Your task to perform on an android device: Clear the cart on newegg.com. Image 0: 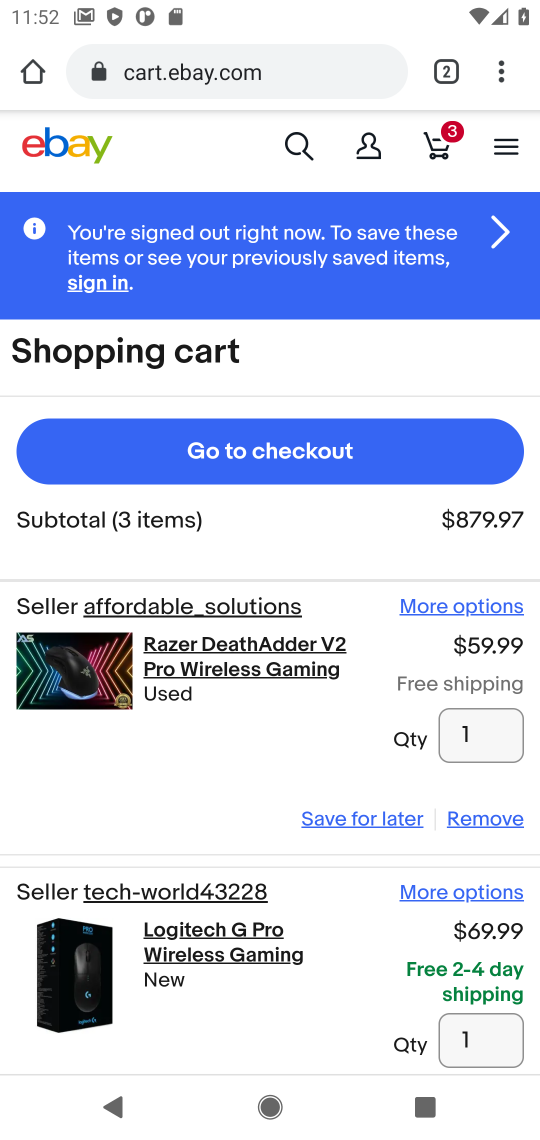
Step 0: click (291, 54)
Your task to perform on an android device: Clear the cart on newegg.com. Image 1: 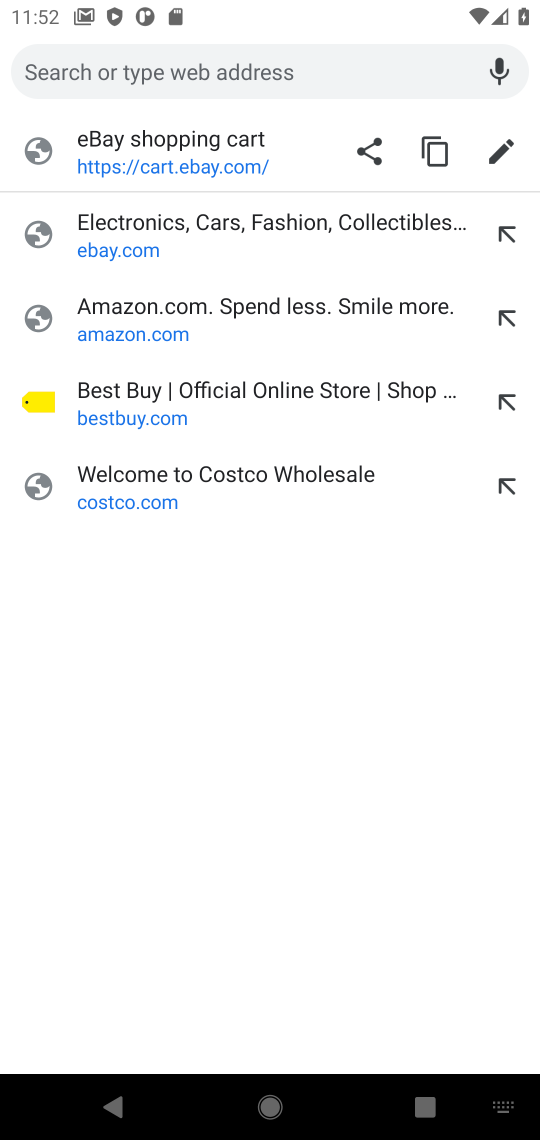
Step 1: press enter
Your task to perform on an android device: Clear the cart on newegg.com. Image 2: 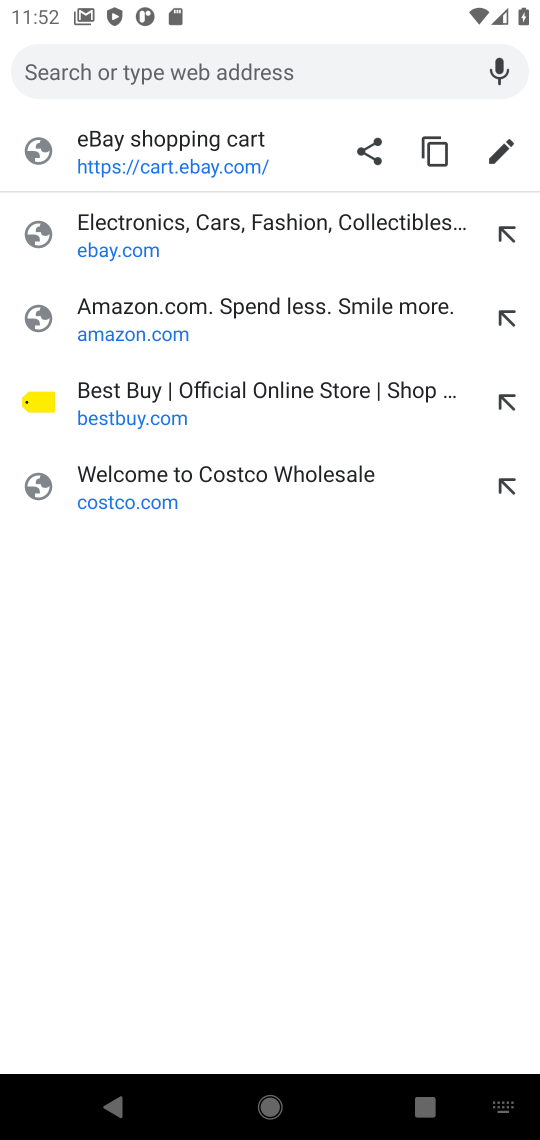
Step 2: type "newegg.com"
Your task to perform on an android device: Clear the cart on newegg.com. Image 3: 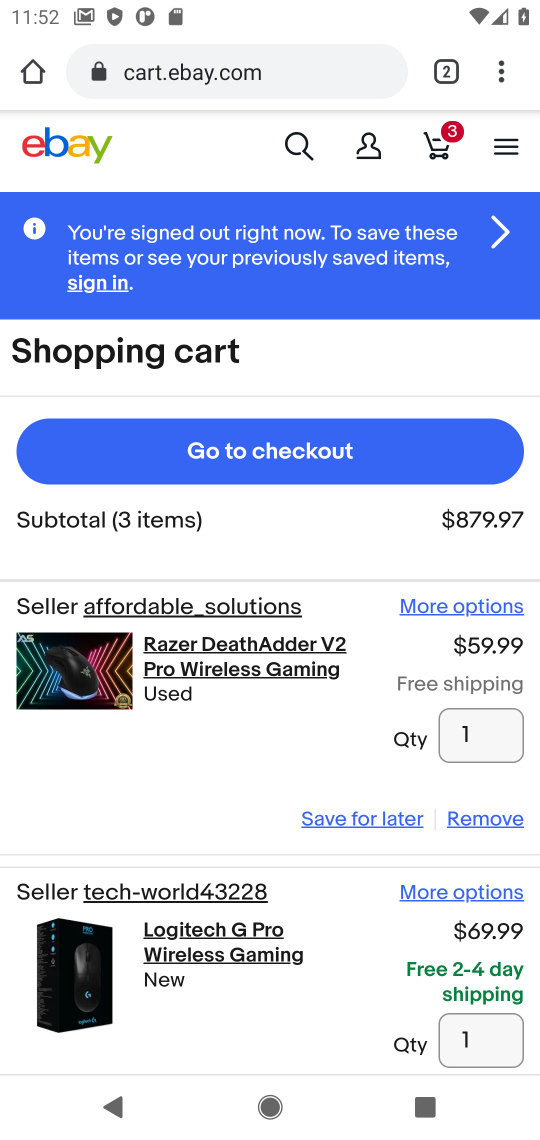
Step 3: click (336, 60)
Your task to perform on an android device: Clear the cart on newegg.com. Image 4: 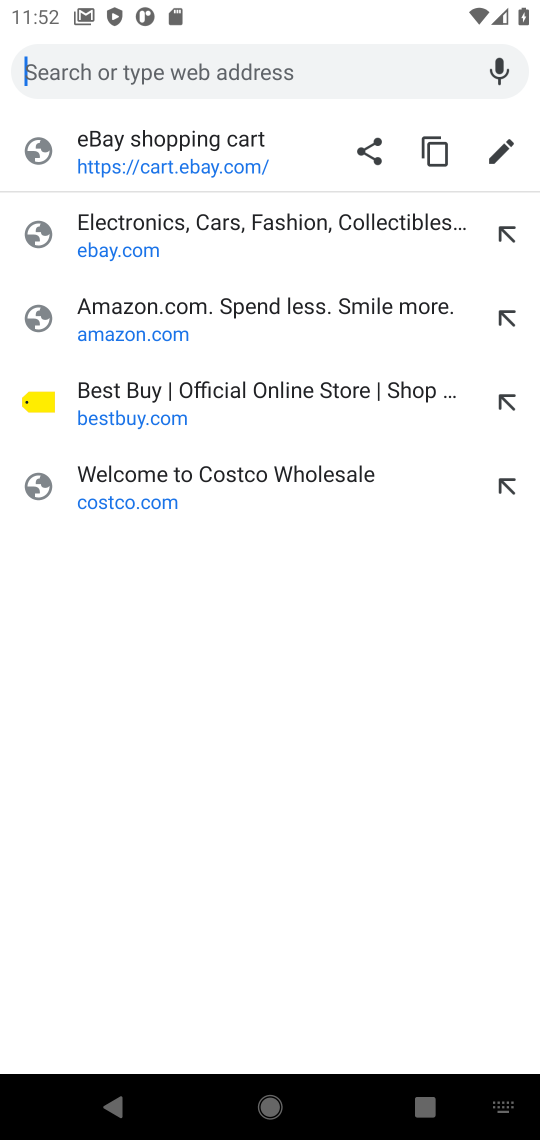
Step 4: press enter
Your task to perform on an android device: Clear the cart on newegg.com. Image 5: 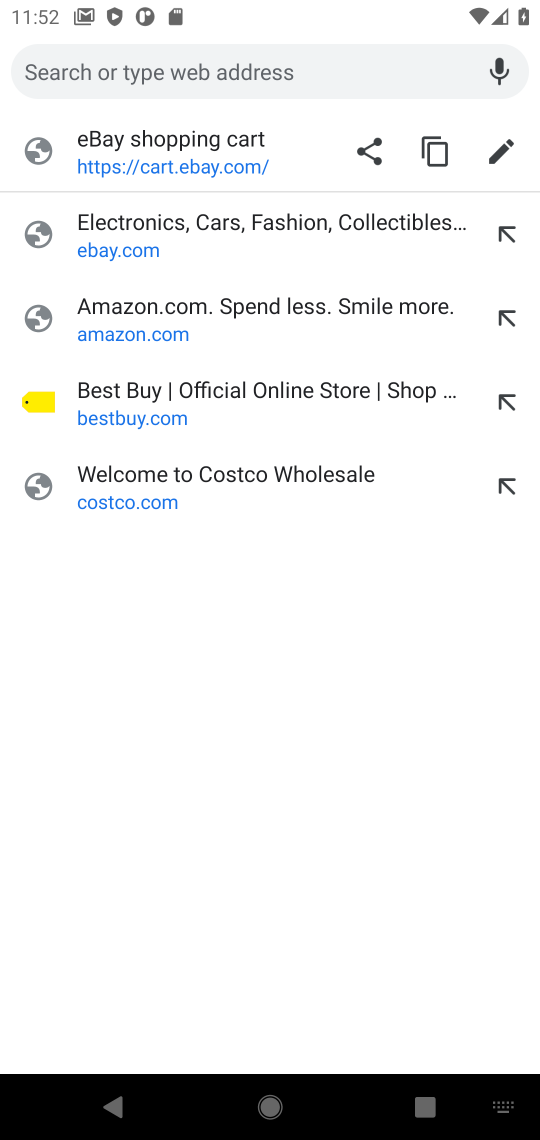
Step 5: type "newegg.com"
Your task to perform on an android device: Clear the cart on newegg.com. Image 6: 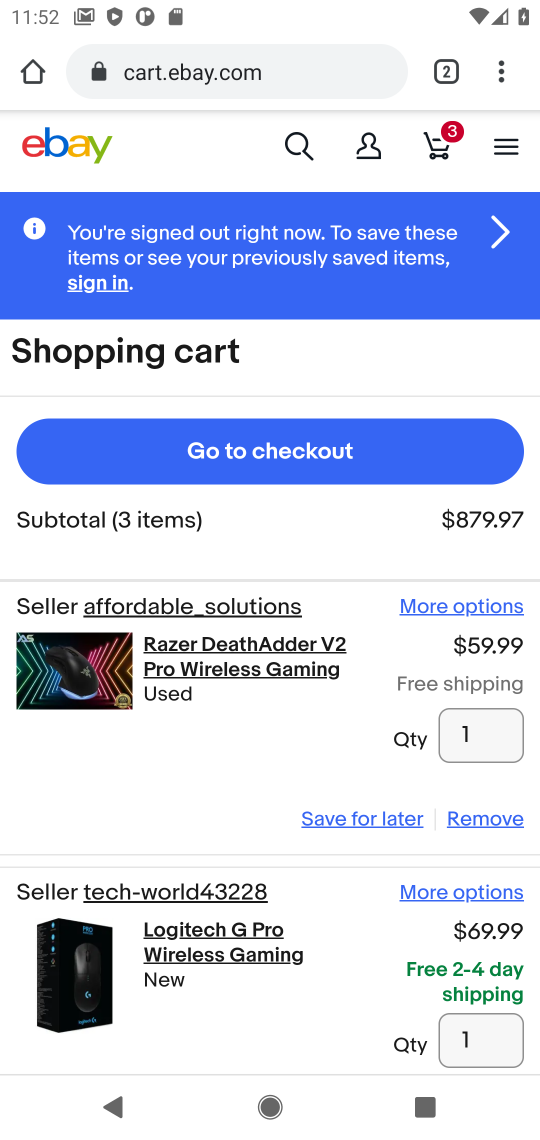
Step 6: click (40, 77)
Your task to perform on an android device: Clear the cart on newegg.com. Image 7: 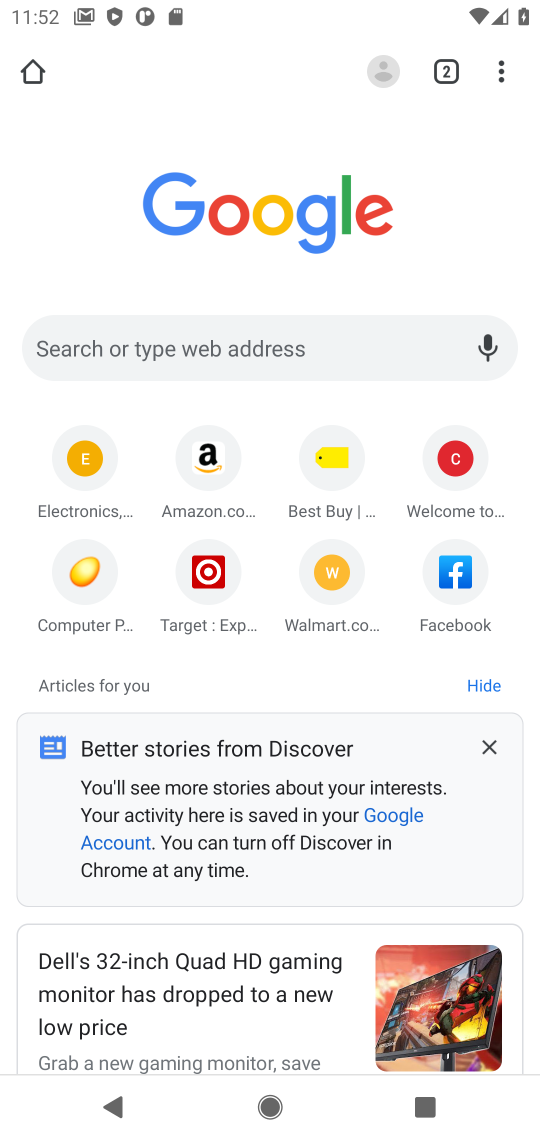
Step 7: click (266, 347)
Your task to perform on an android device: Clear the cart on newegg.com. Image 8: 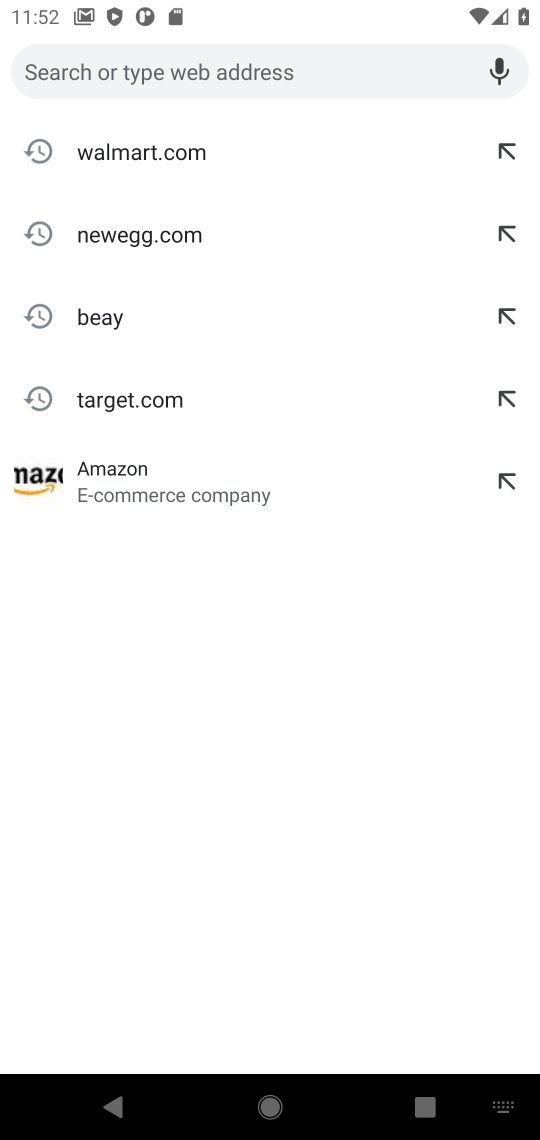
Step 8: click (176, 235)
Your task to perform on an android device: Clear the cart on newegg.com. Image 9: 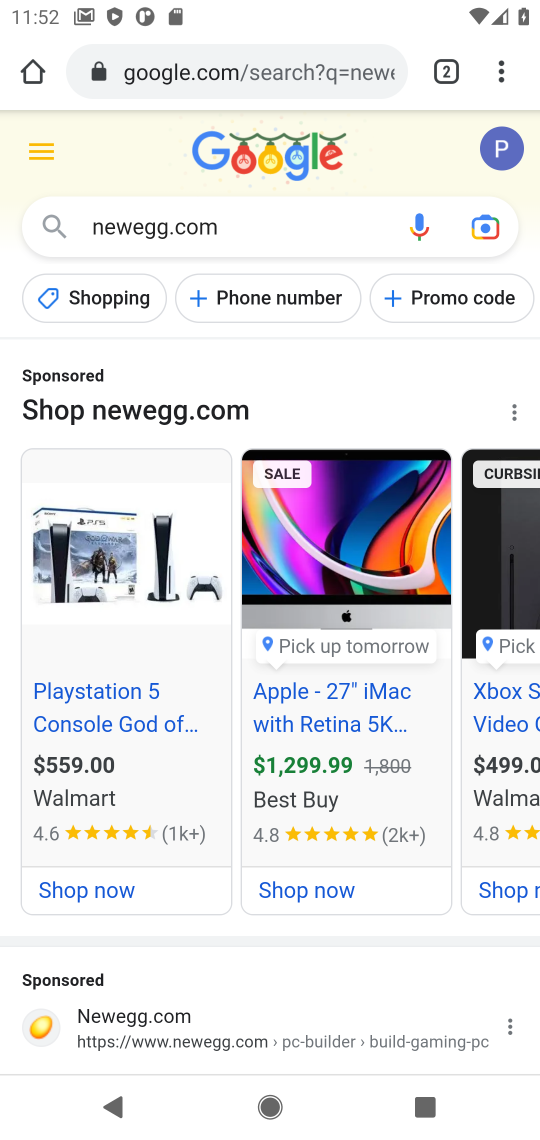
Step 9: drag from (258, 972) to (379, 313)
Your task to perform on an android device: Clear the cart on newegg.com. Image 10: 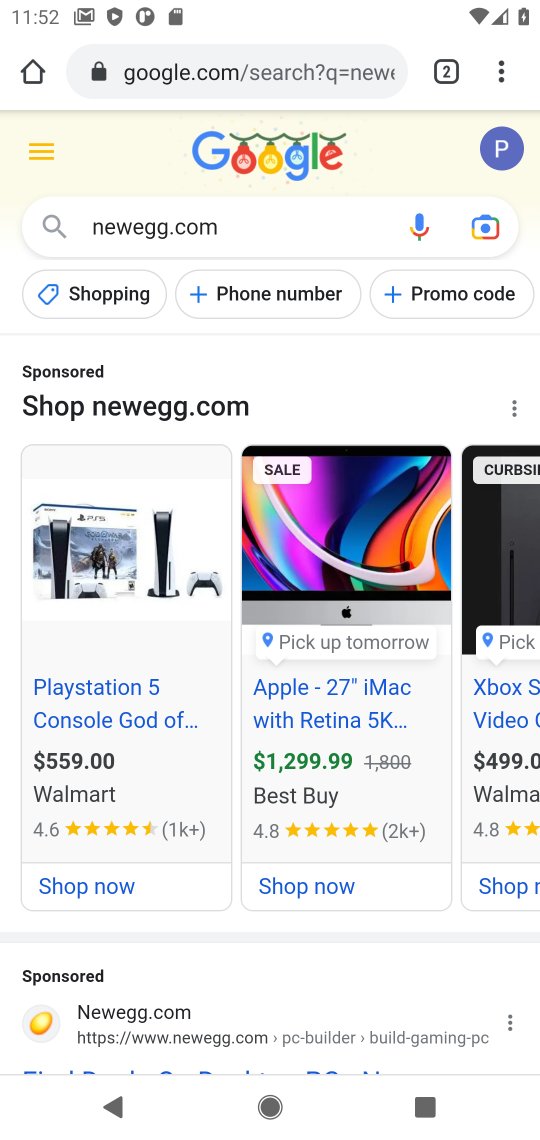
Step 10: drag from (258, 979) to (335, 482)
Your task to perform on an android device: Clear the cart on newegg.com. Image 11: 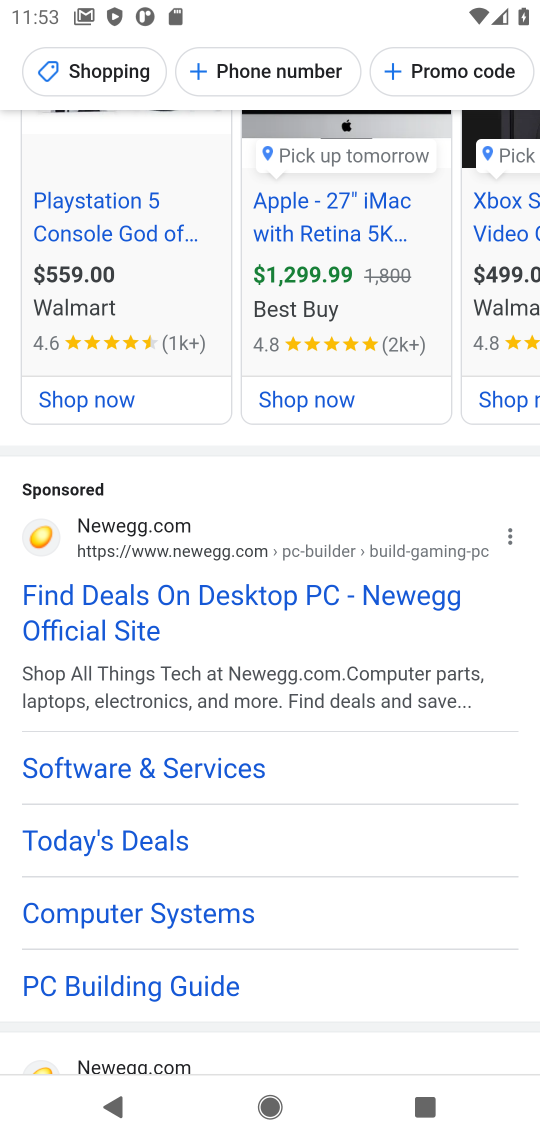
Step 11: drag from (313, 754) to (415, 196)
Your task to perform on an android device: Clear the cart on newegg.com. Image 12: 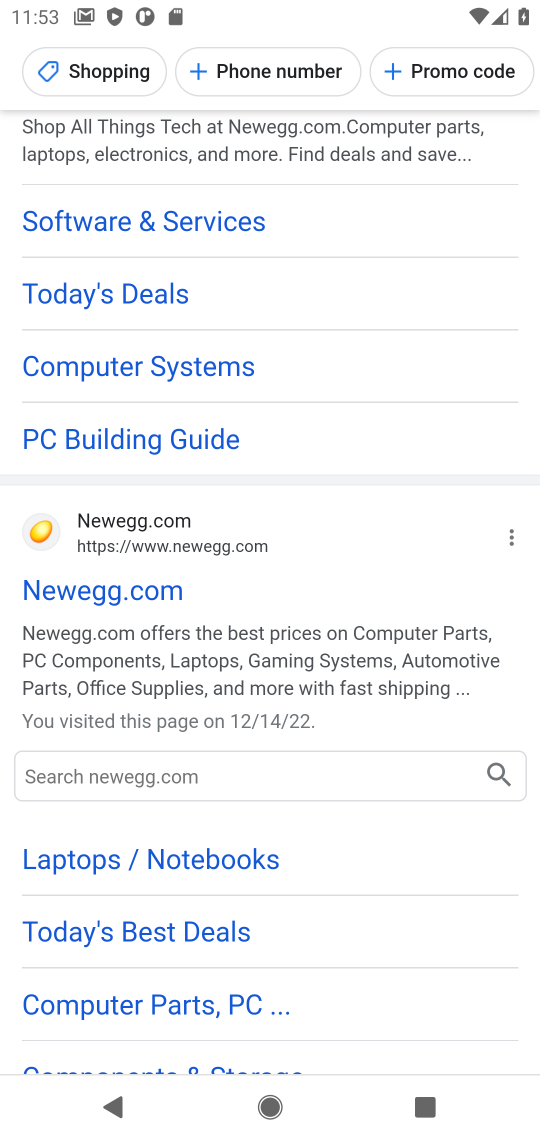
Step 12: click (225, 543)
Your task to perform on an android device: Clear the cart on newegg.com. Image 13: 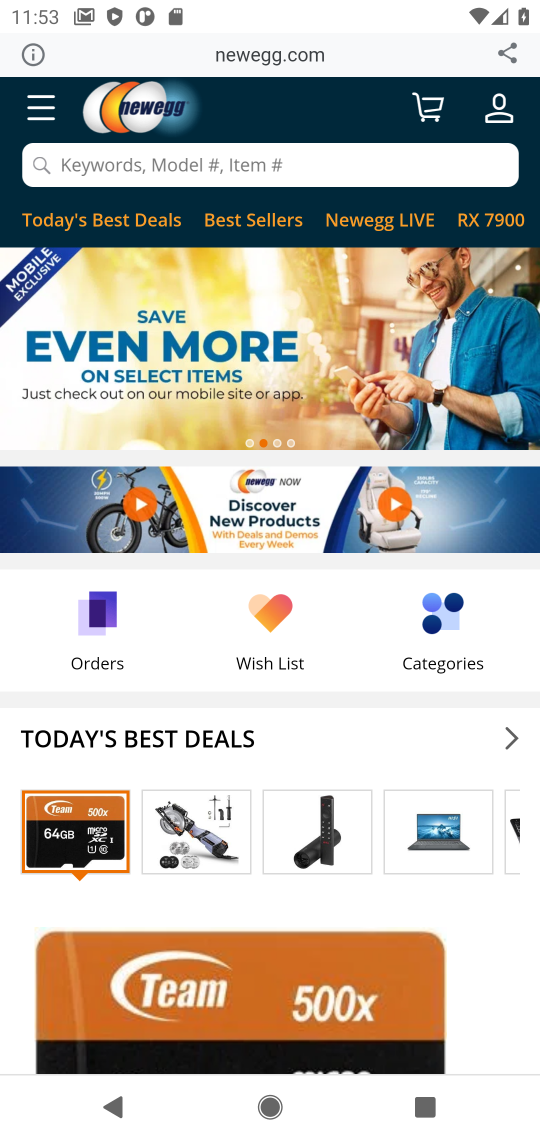
Step 13: click (423, 117)
Your task to perform on an android device: Clear the cart on newegg.com. Image 14: 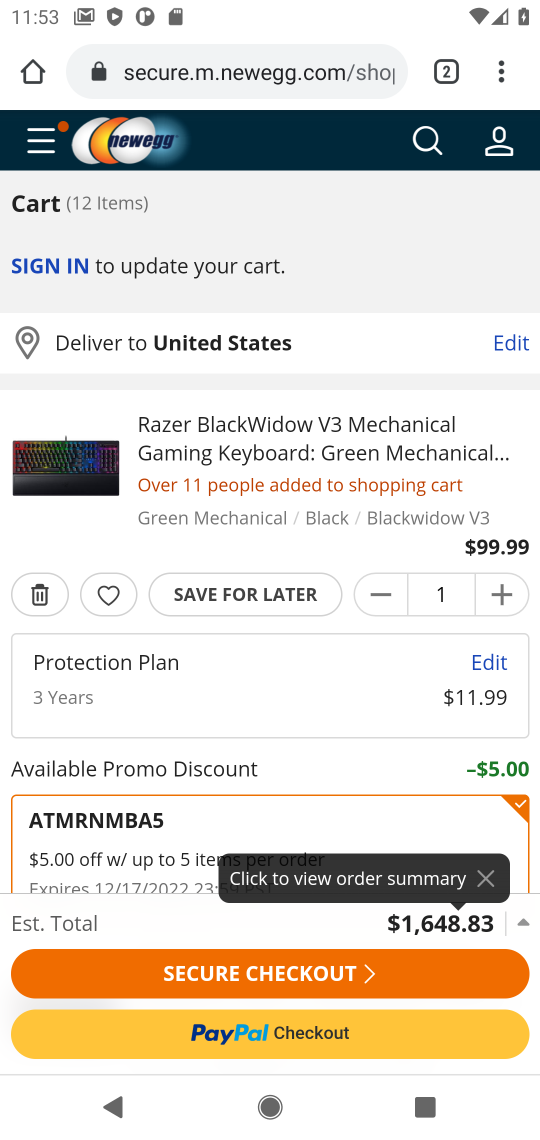
Step 14: click (33, 590)
Your task to perform on an android device: Clear the cart on newegg.com. Image 15: 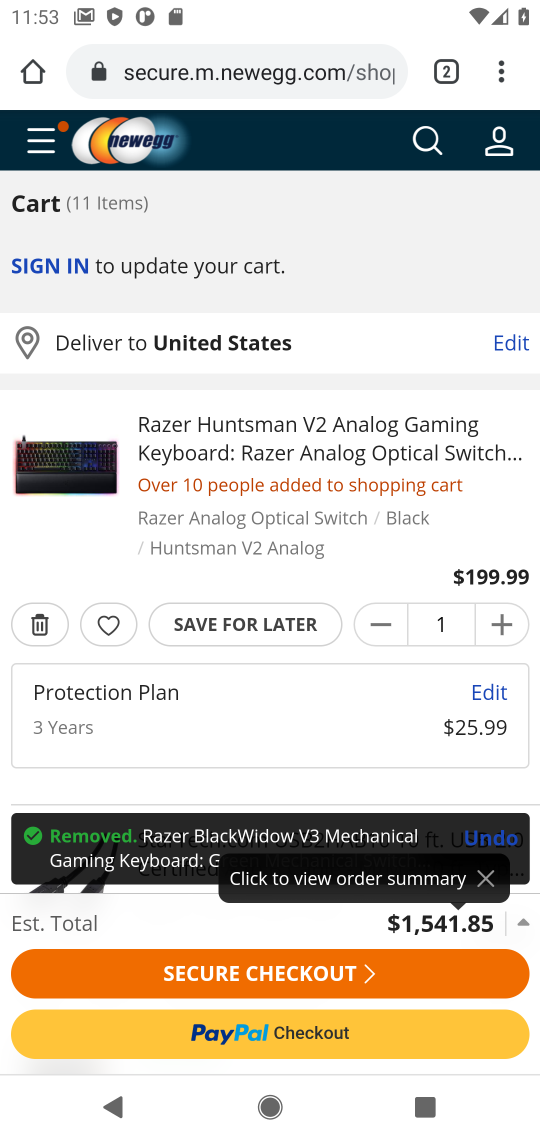
Step 15: click (40, 625)
Your task to perform on an android device: Clear the cart on newegg.com. Image 16: 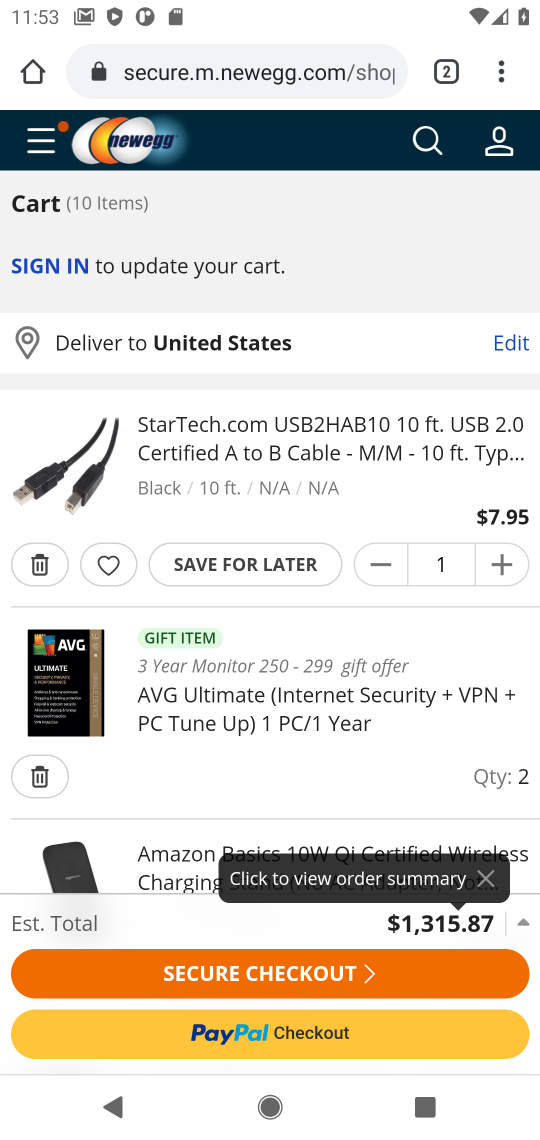
Step 16: click (39, 559)
Your task to perform on an android device: Clear the cart on newegg.com. Image 17: 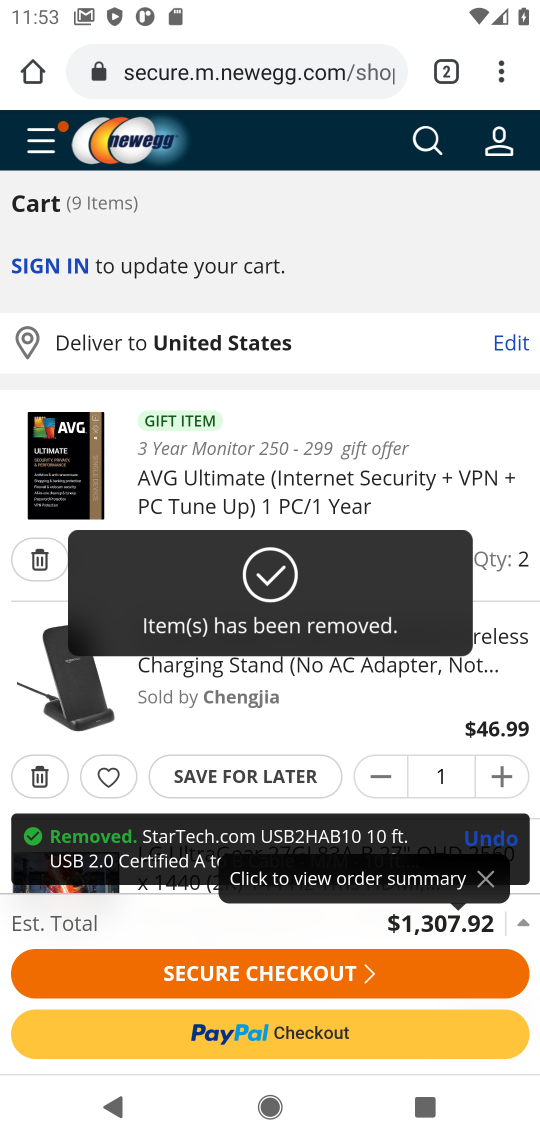
Step 17: click (39, 559)
Your task to perform on an android device: Clear the cart on newegg.com. Image 18: 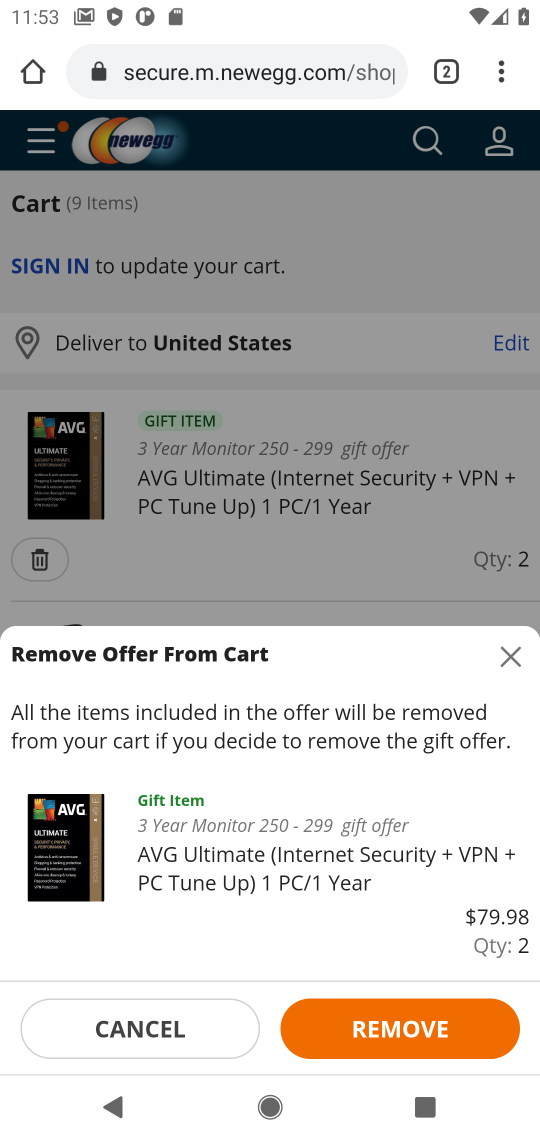
Step 18: click (518, 662)
Your task to perform on an android device: Clear the cart on newegg.com. Image 19: 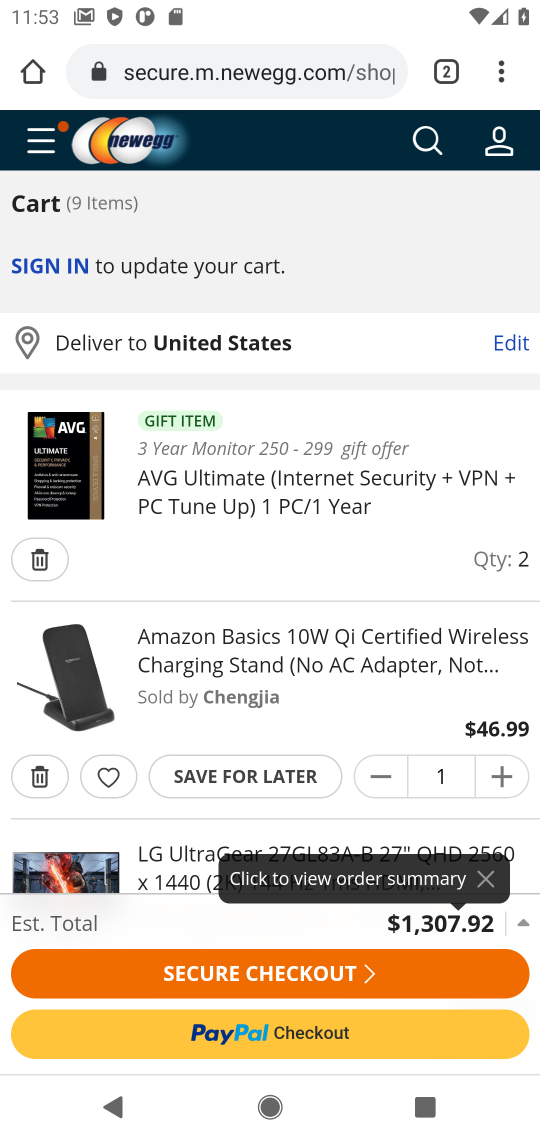
Step 19: click (42, 555)
Your task to perform on an android device: Clear the cart on newegg.com. Image 20: 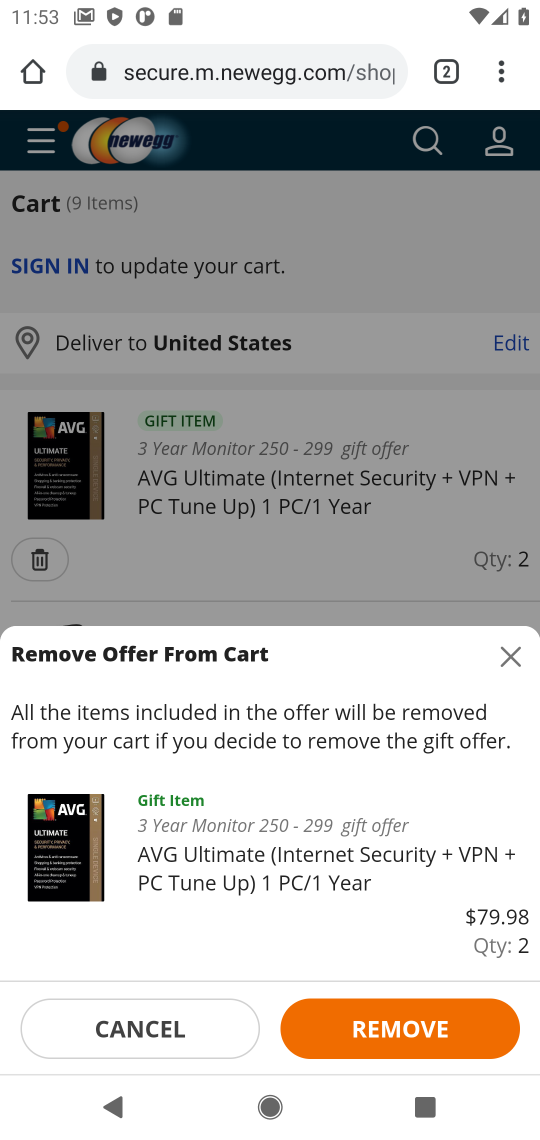
Step 20: click (404, 1019)
Your task to perform on an android device: Clear the cart on newegg.com. Image 21: 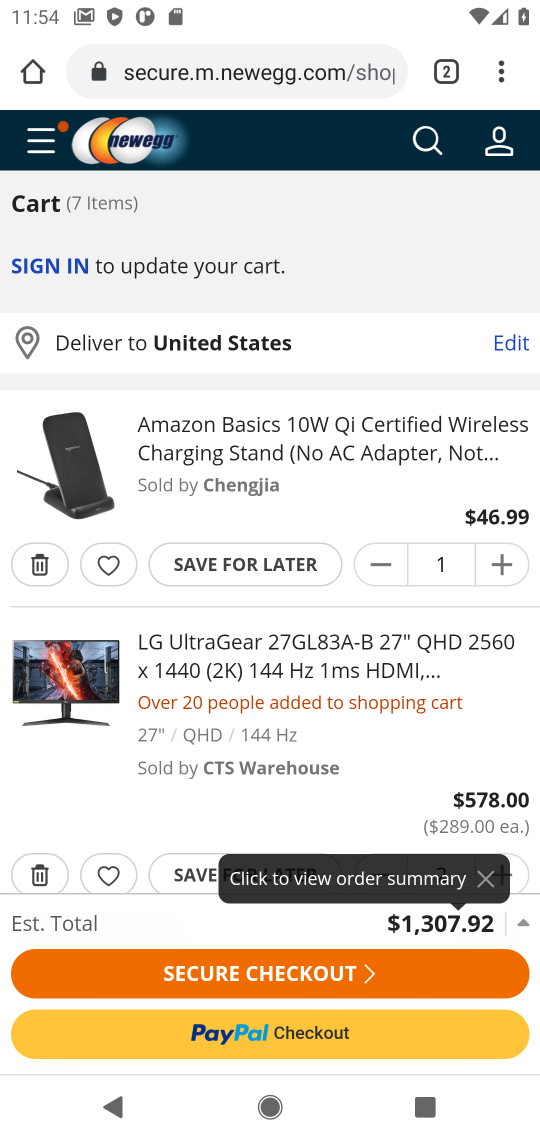
Step 21: click (46, 564)
Your task to perform on an android device: Clear the cart on newegg.com. Image 22: 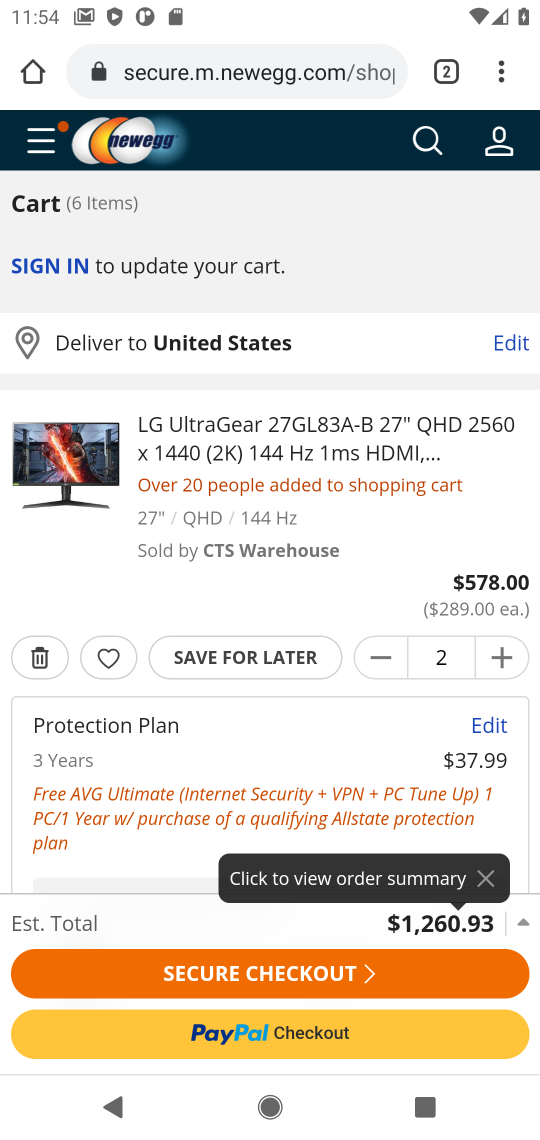
Step 22: click (39, 660)
Your task to perform on an android device: Clear the cart on newegg.com. Image 23: 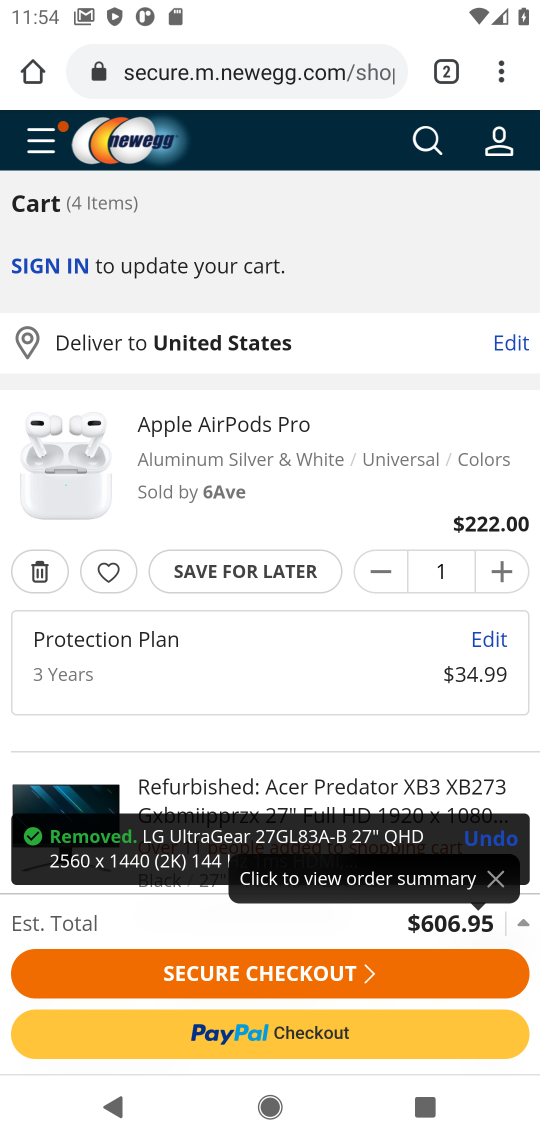
Step 23: click (40, 576)
Your task to perform on an android device: Clear the cart on newegg.com. Image 24: 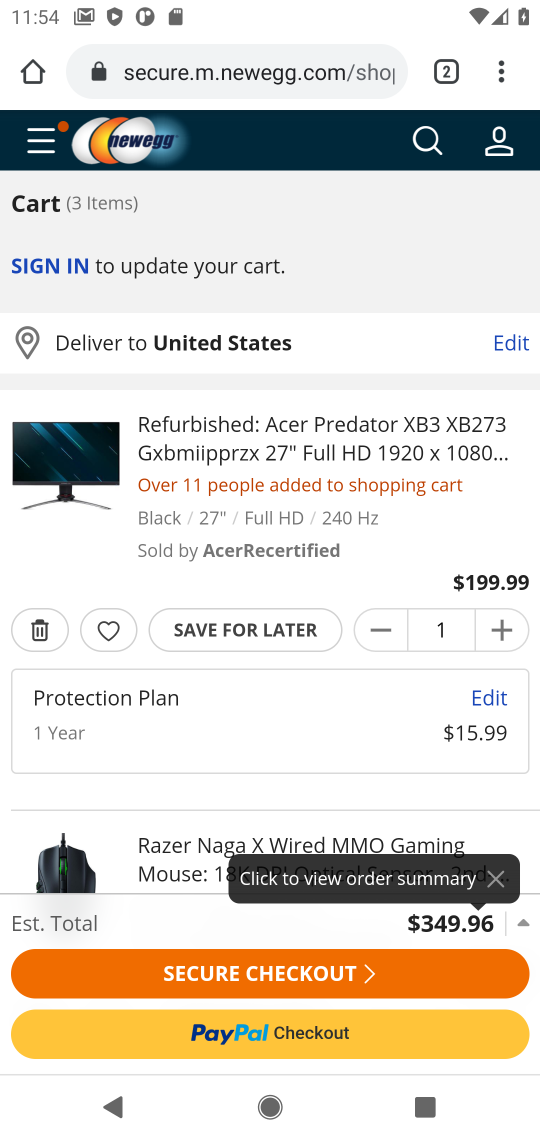
Step 24: click (38, 627)
Your task to perform on an android device: Clear the cart on newegg.com. Image 25: 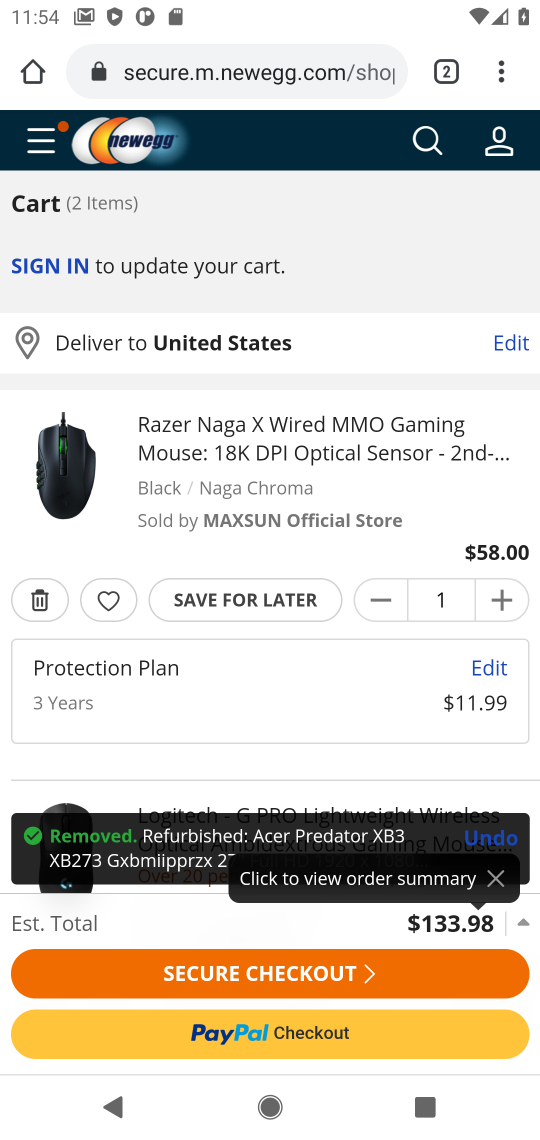
Step 25: click (37, 597)
Your task to perform on an android device: Clear the cart on newegg.com. Image 26: 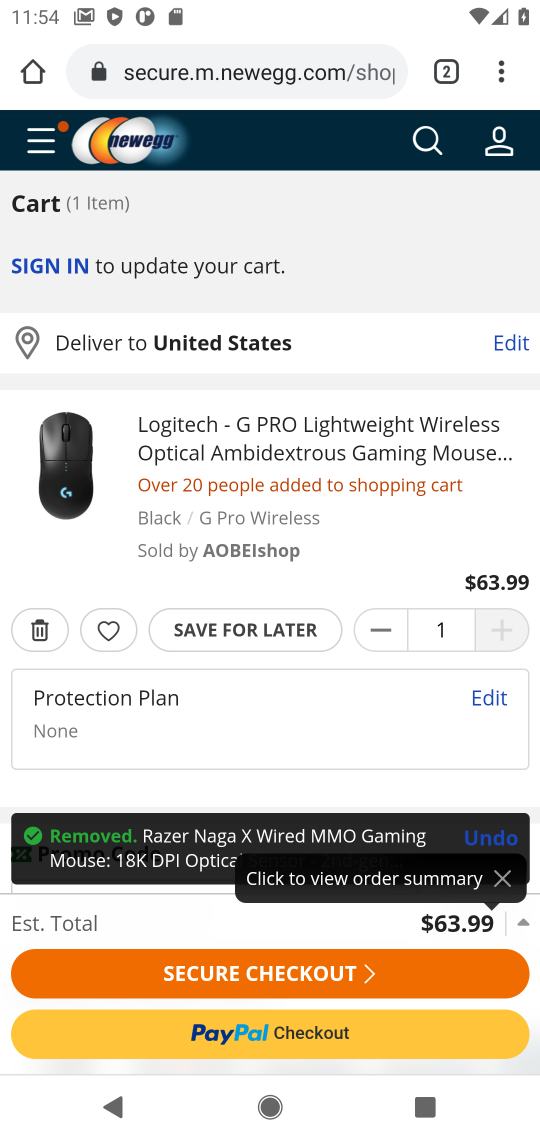
Step 26: click (41, 618)
Your task to perform on an android device: Clear the cart on newegg.com. Image 27: 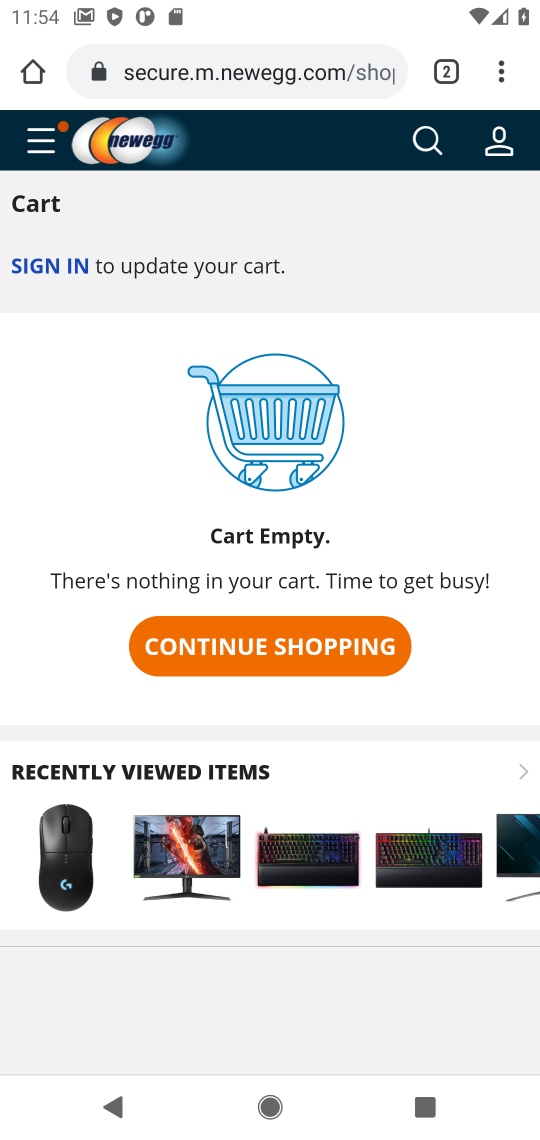
Step 27: task complete